Your task to perform on an android device: Open Google Chrome and click the shortcut for Amazon.com Image 0: 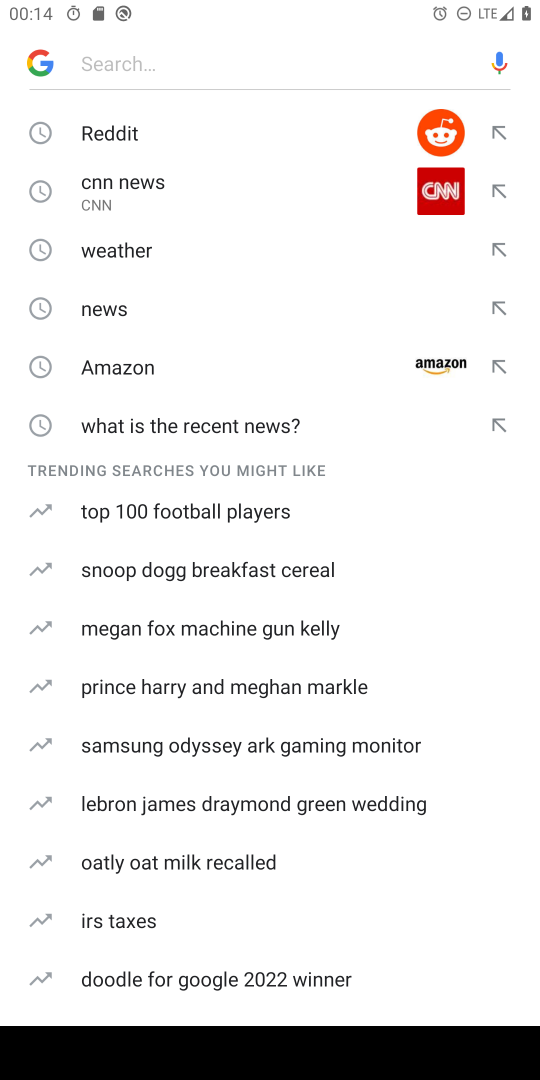
Step 0: click (221, 361)
Your task to perform on an android device: Open Google Chrome and click the shortcut for Amazon.com Image 1: 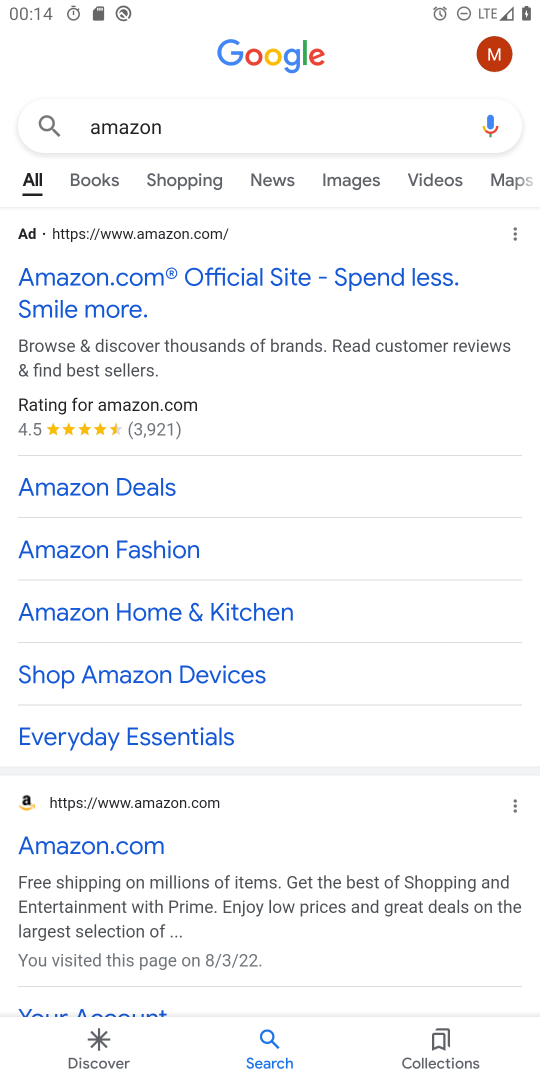
Step 1: click (87, 281)
Your task to perform on an android device: Open Google Chrome and click the shortcut for Amazon.com Image 2: 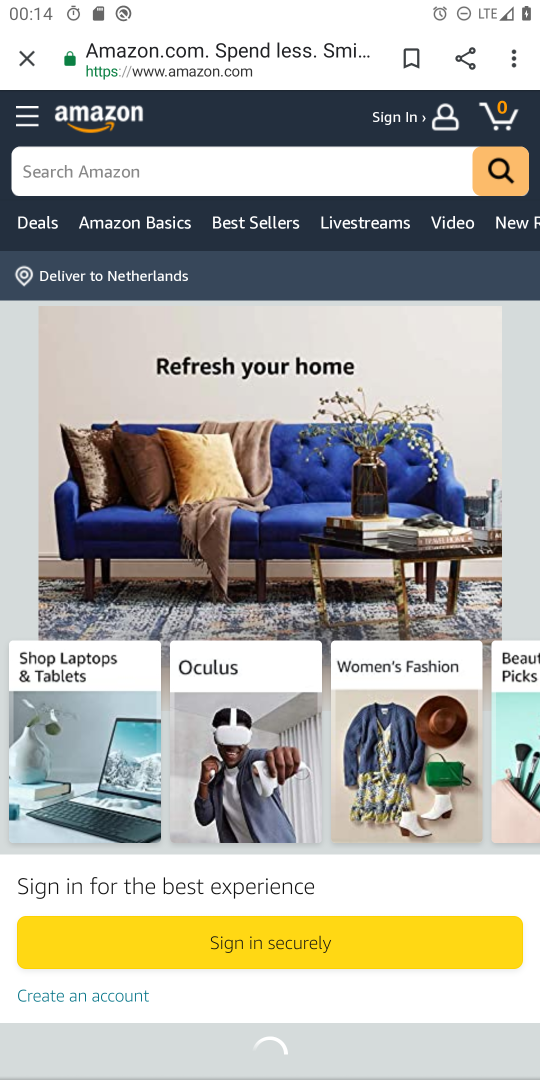
Step 2: task complete